Your task to perform on an android device: turn on location history Image 0: 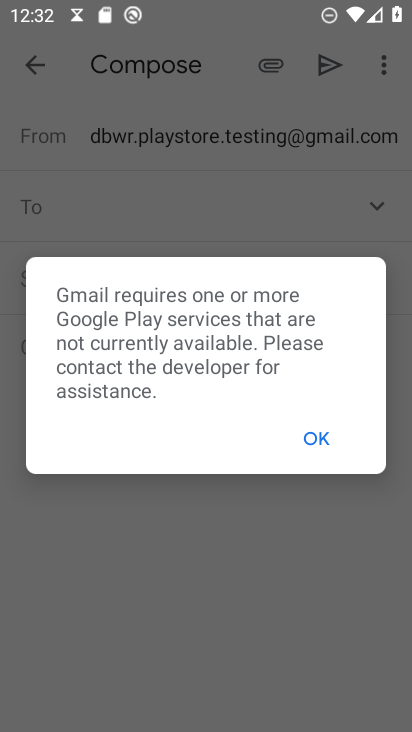
Step 0: press home button
Your task to perform on an android device: turn on location history Image 1: 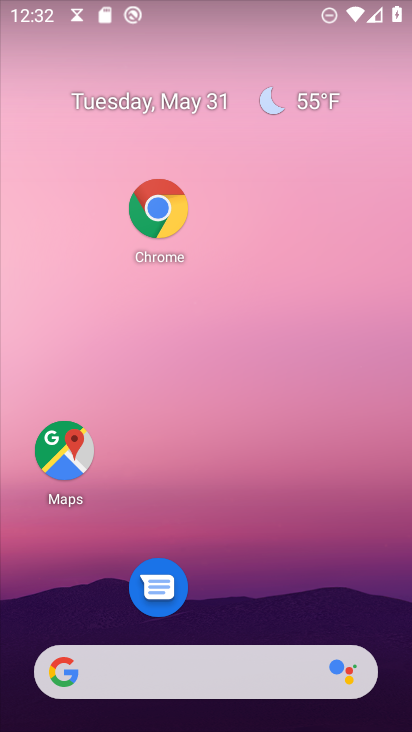
Step 1: drag from (269, 614) to (250, 207)
Your task to perform on an android device: turn on location history Image 2: 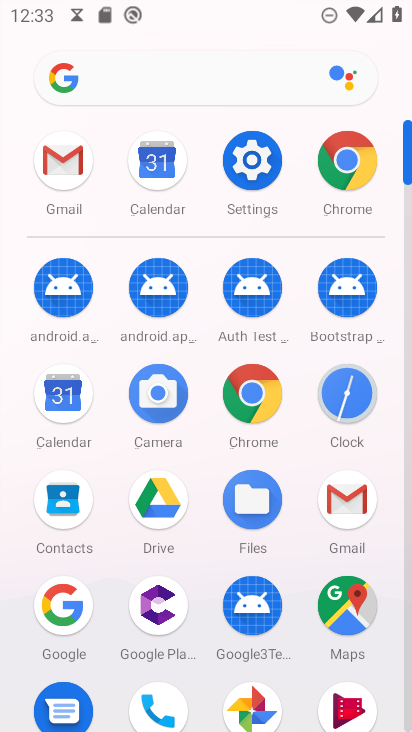
Step 2: click (273, 168)
Your task to perform on an android device: turn on location history Image 3: 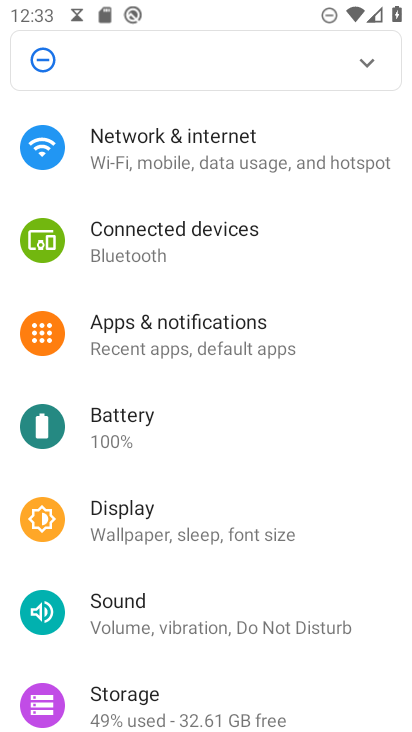
Step 3: drag from (196, 625) to (199, 241)
Your task to perform on an android device: turn on location history Image 4: 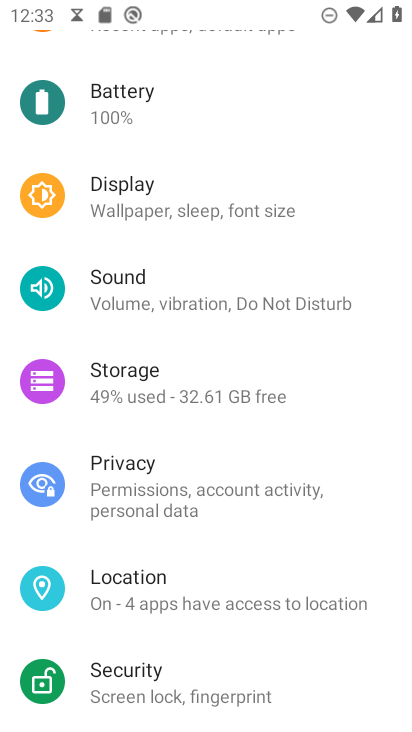
Step 4: click (118, 596)
Your task to perform on an android device: turn on location history Image 5: 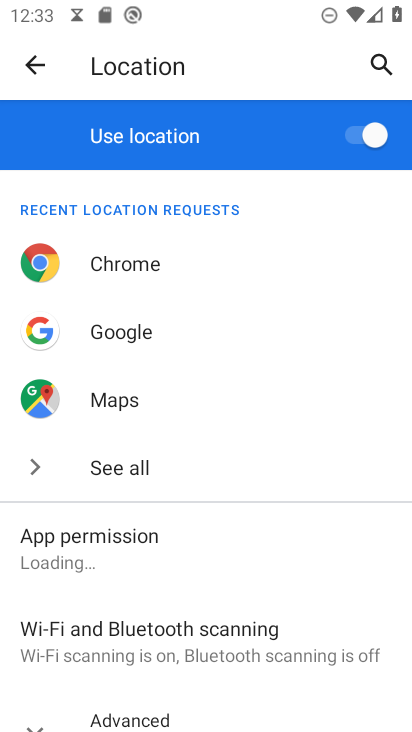
Step 5: drag from (202, 676) to (208, 406)
Your task to perform on an android device: turn on location history Image 6: 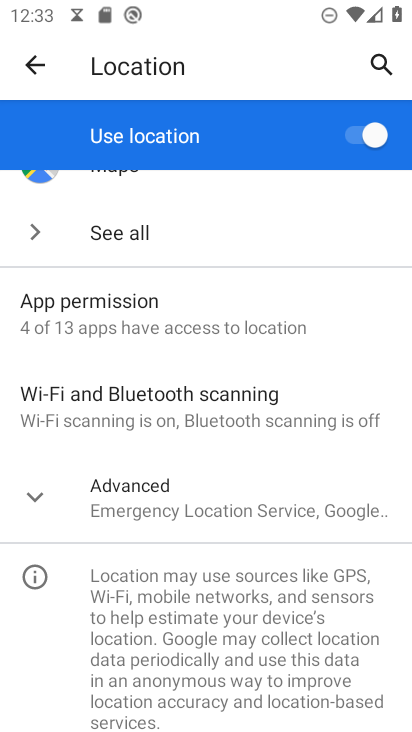
Step 6: click (183, 502)
Your task to perform on an android device: turn on location history Image 7: 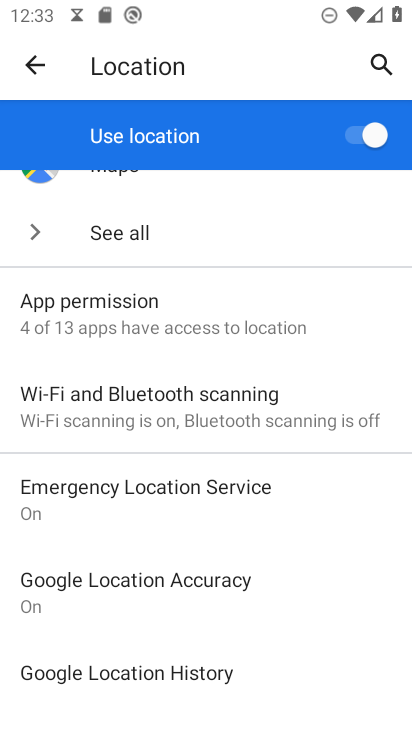
Step 7: click (147, 669)
Your task to perform on an android device: turn on location history Image 8: 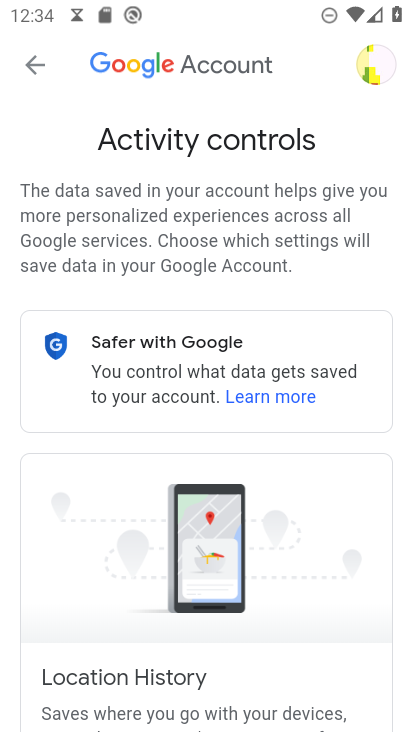
Step 8: task complete